Your task to perform on an android device: Go to Wikipedia Image 0: 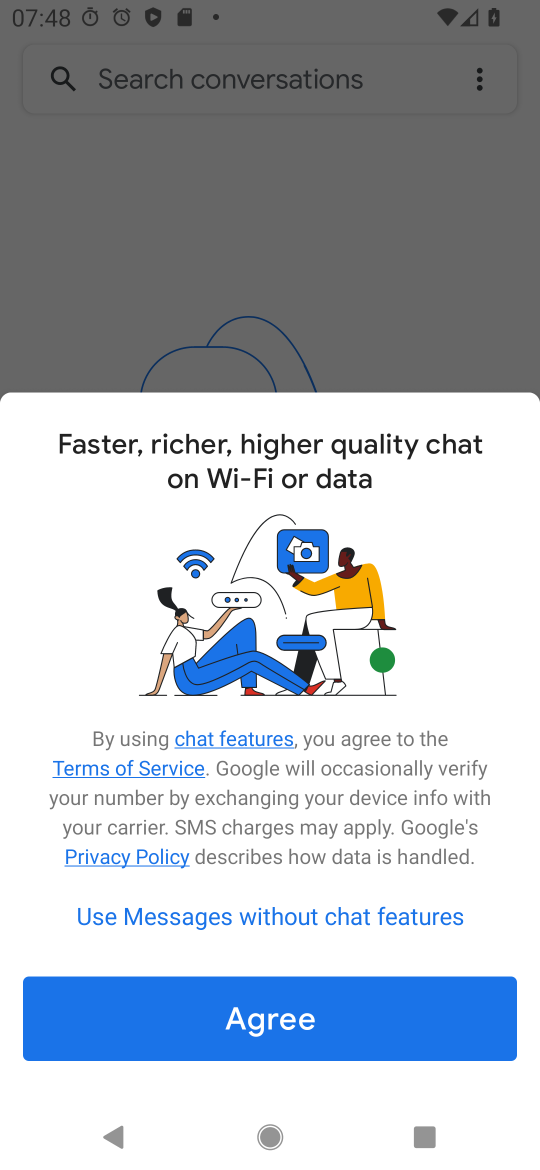
Step 0: press home button
Your task to perform on an android device: Go to Wikipedia Image 1: 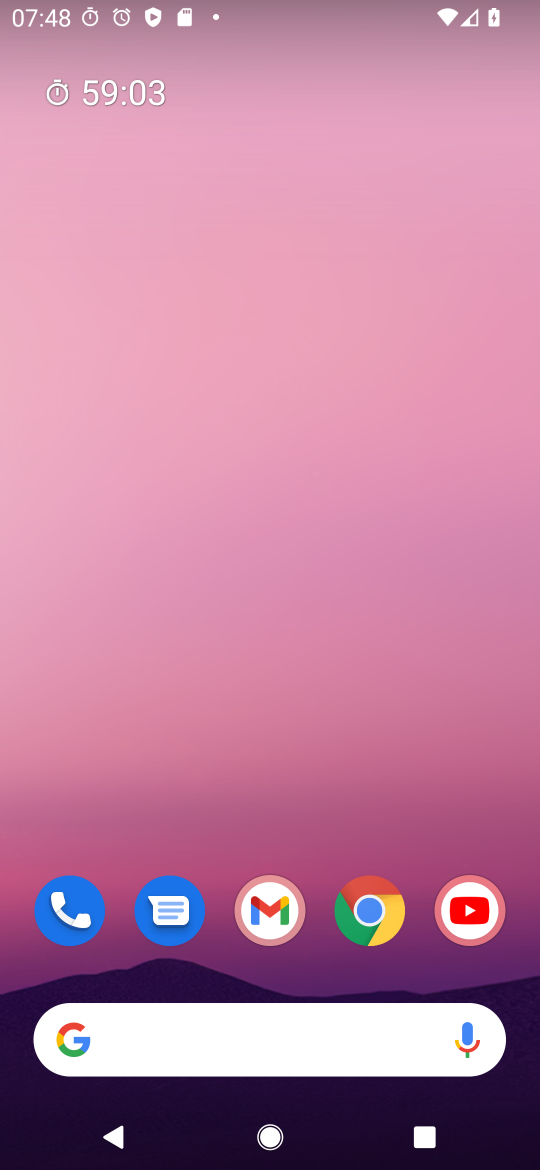
Step 1: drag from (269, 1042) to (252, 329)
Your task to perform on an android device: Go to Wikipedia Image 2: 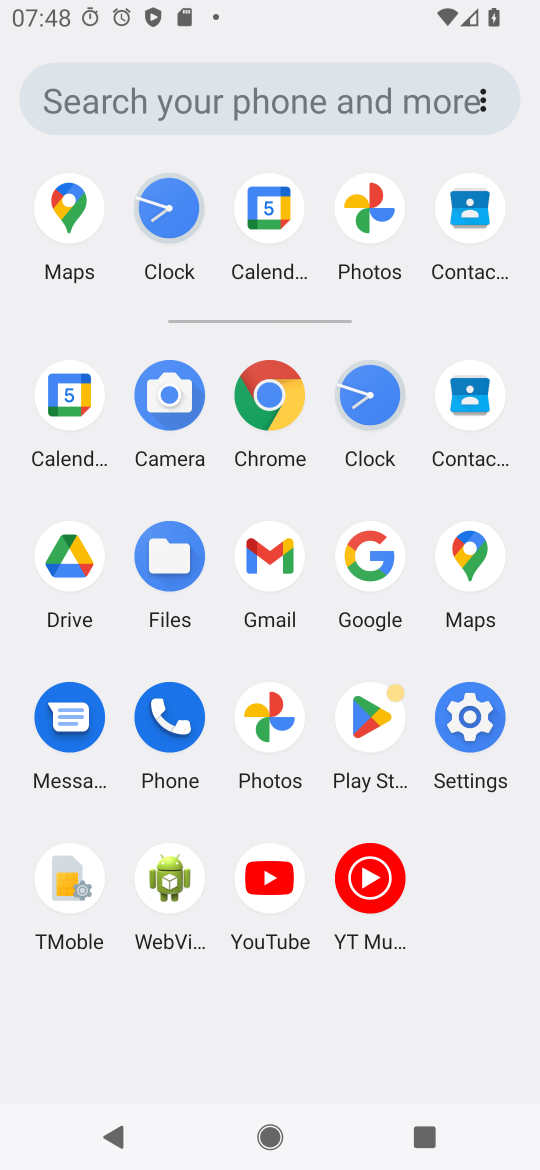
Step 2: click (262, 378)
Your task to perform on an android device: Go to Wikipedia Image 3: 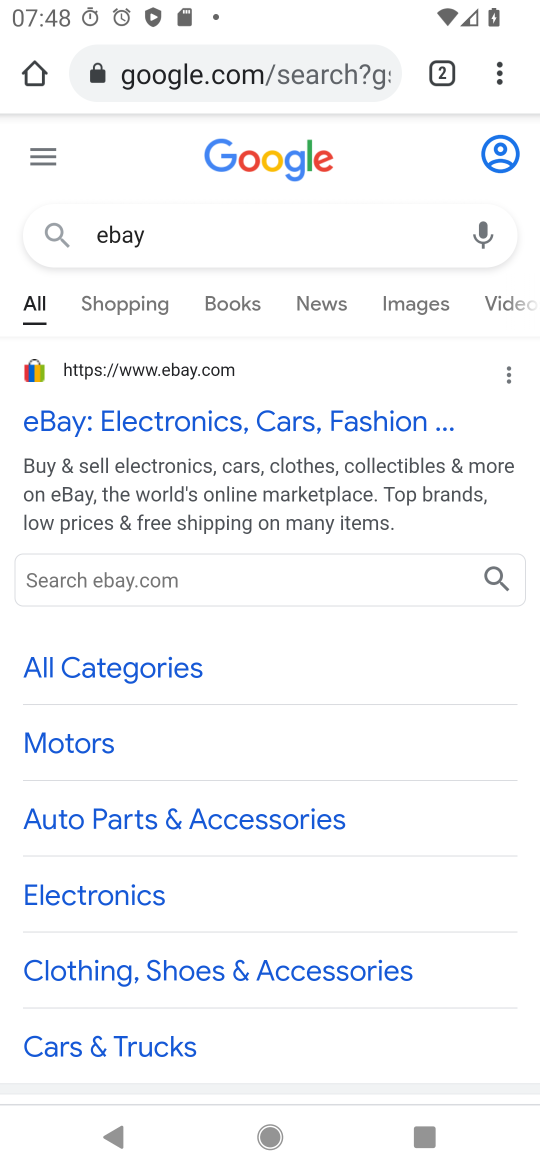
Step 3: click (490, 63)
Your task to perform on an android device: Go to Wikipedia Image 4: 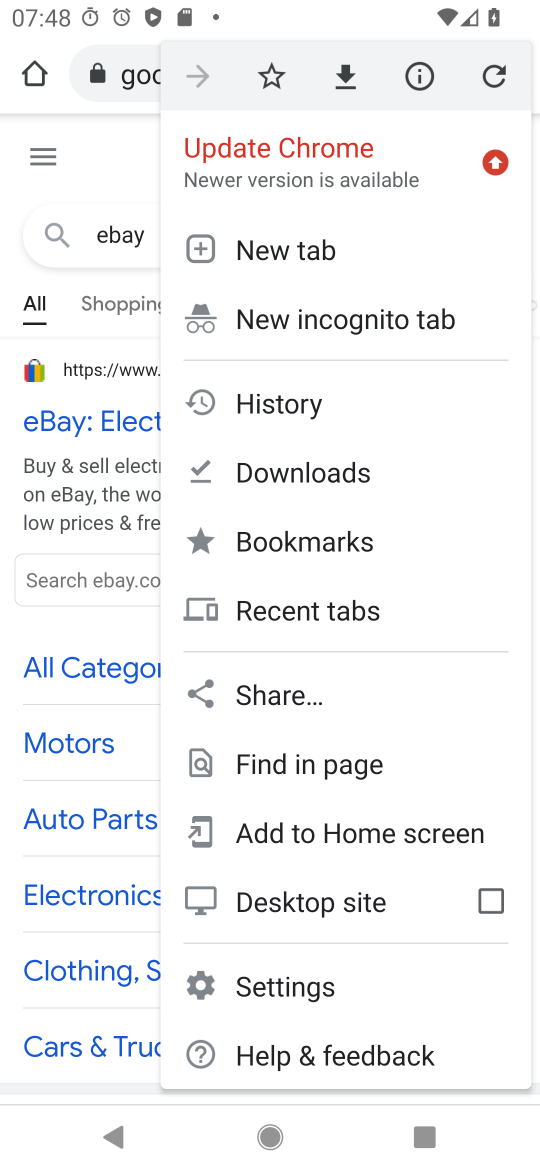
Step 4: click (287, 260)
Your task to perform on an android device: Go to Wikipedia Image 5: 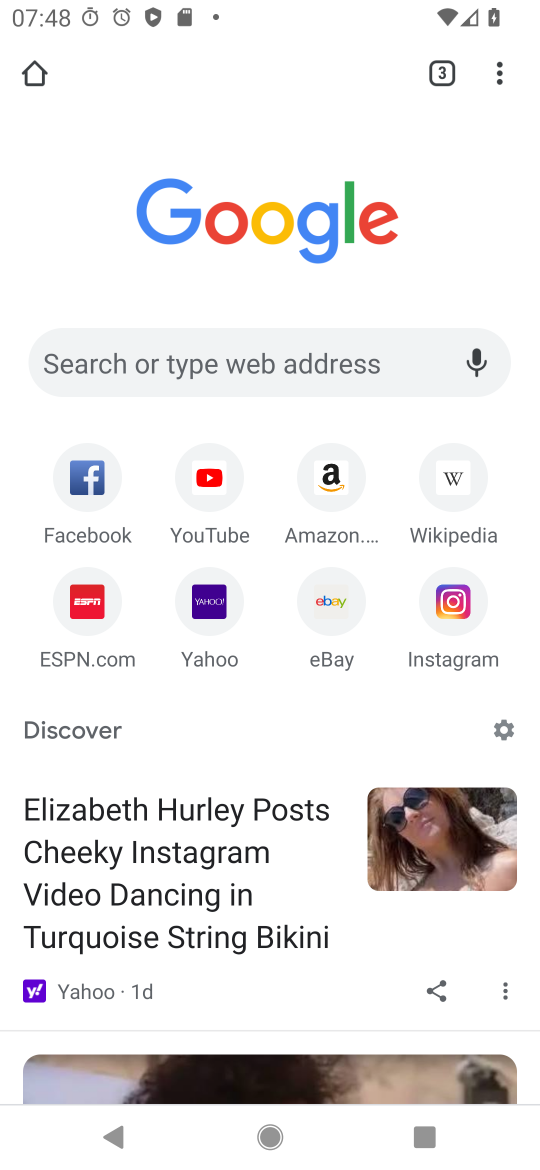
Step 5: click (435, 495)
Your task to perform on an android device: Go to Wikipedia Image 6: 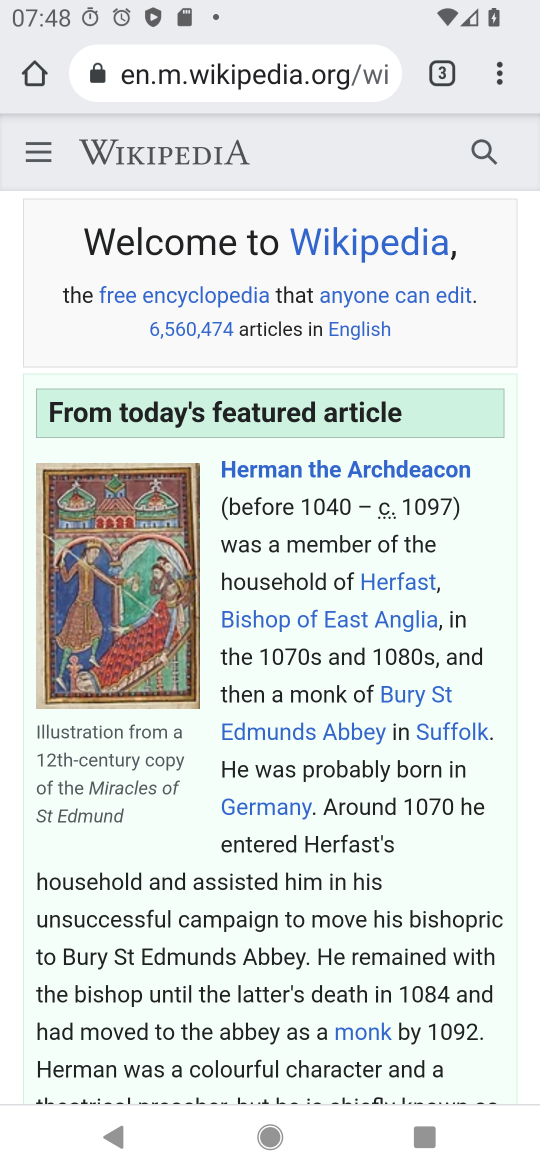
Step 6: task complete